Your task to perform on an android device: set the timer Image 0: 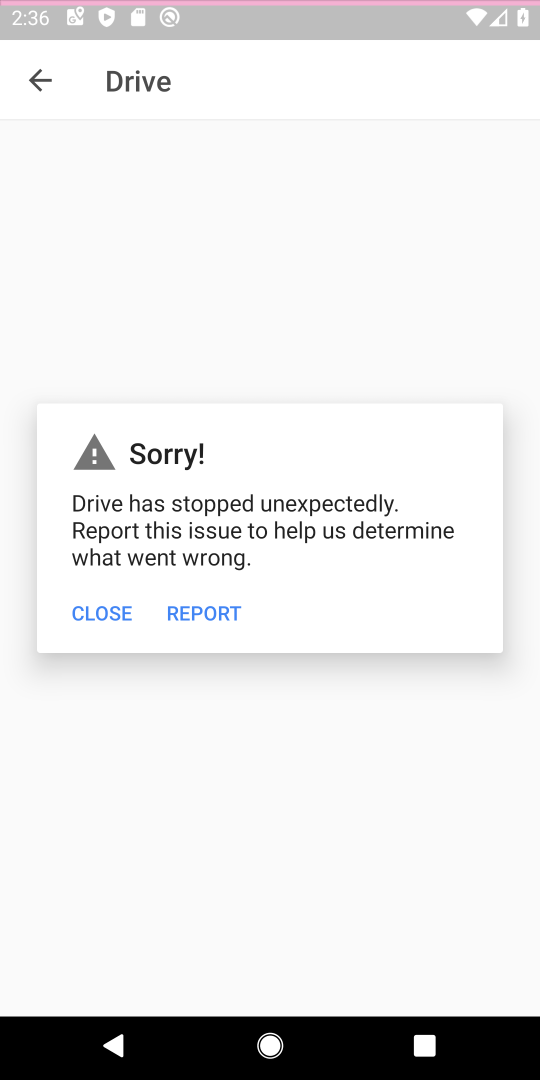
Step 0: press home button
Your task to perform on an android device: set the timer Image 1: 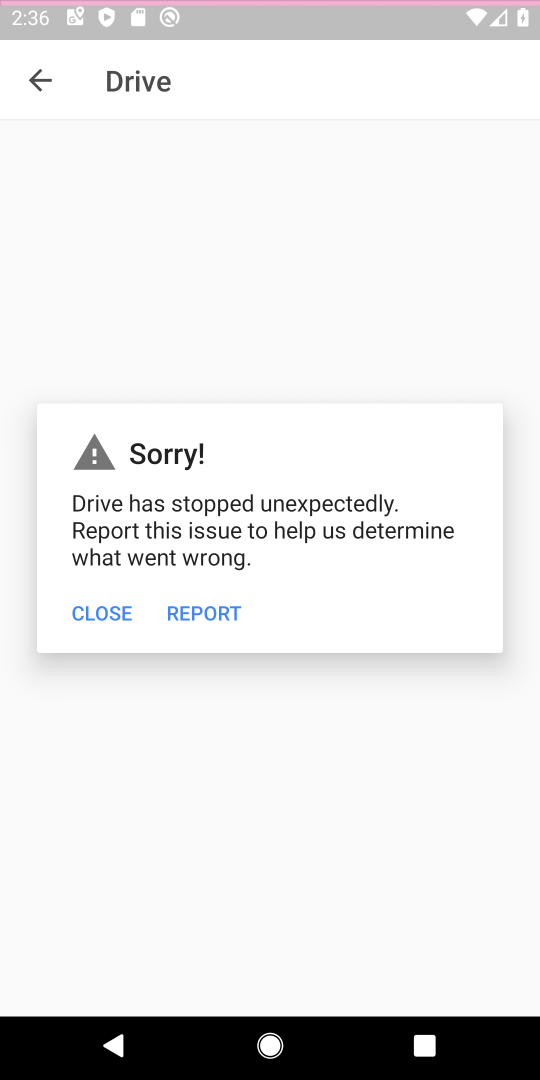
Step 1: click (325, 243)
Your task to perform on an android device: set the timer Image 2: 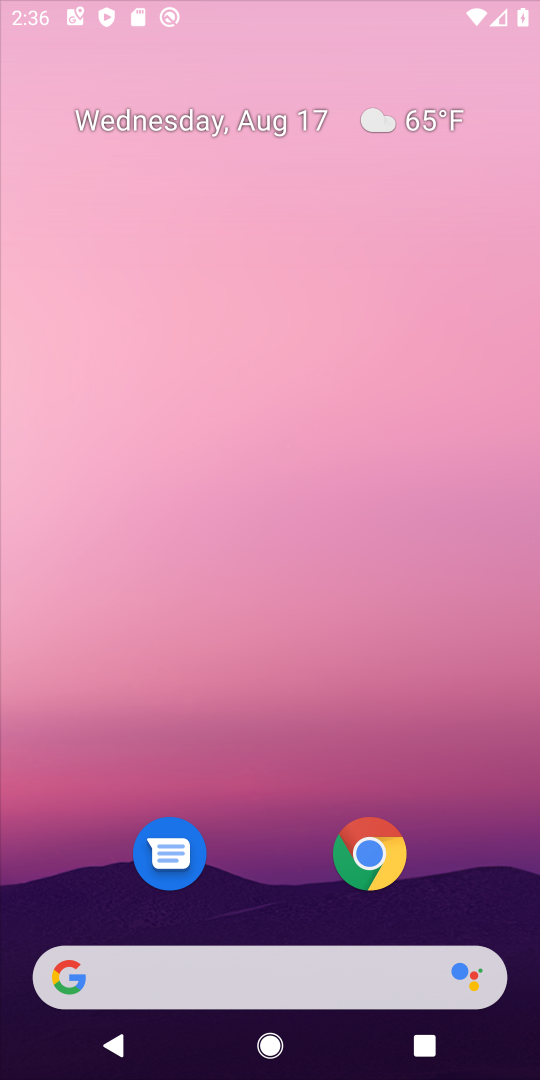
Step 2: press home button
Your task to perform on an android device: set the timer Image 3: 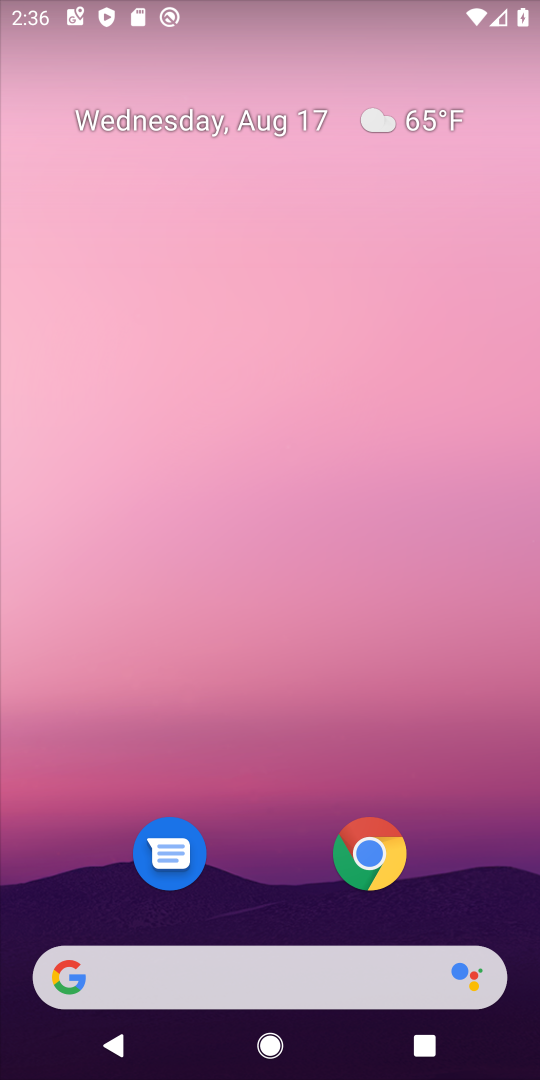
Step 3: drag from (220, 906) to (196, 200)
Your task to perform on an android device: set the timer Image 4: 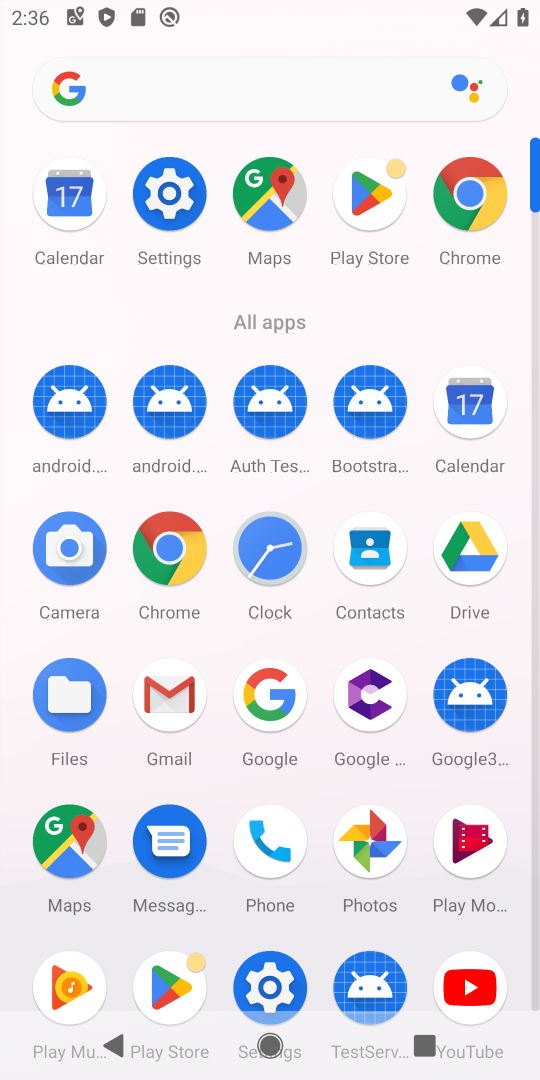
Step 4: drag from (268, 747) to (525, 565)
Your task to perform on an android device: set the timer Image 5: 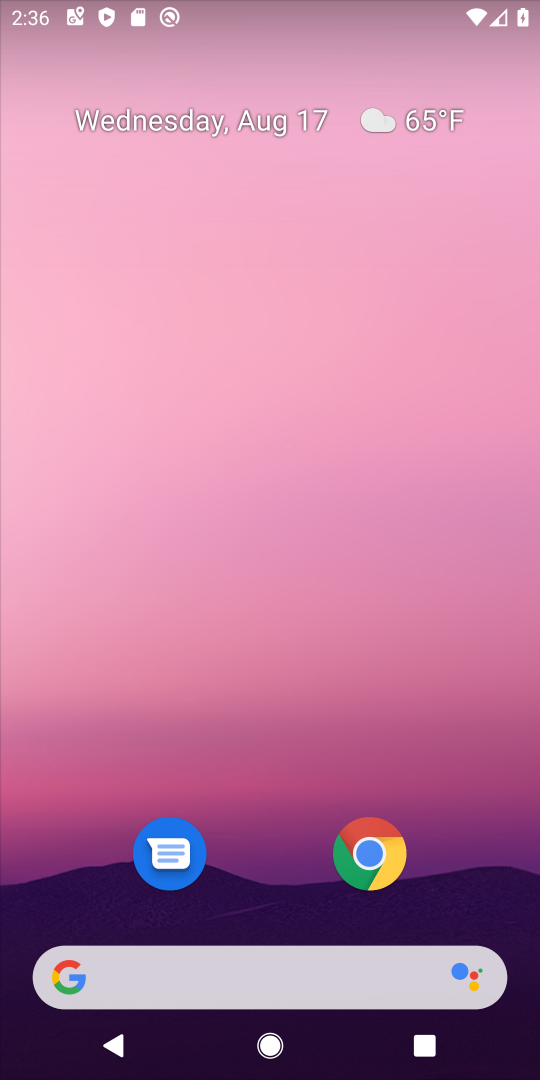
Step 5: drag from (341, 795) to (326, 228)
Your task to perform on an android device: set the timer Image 6: 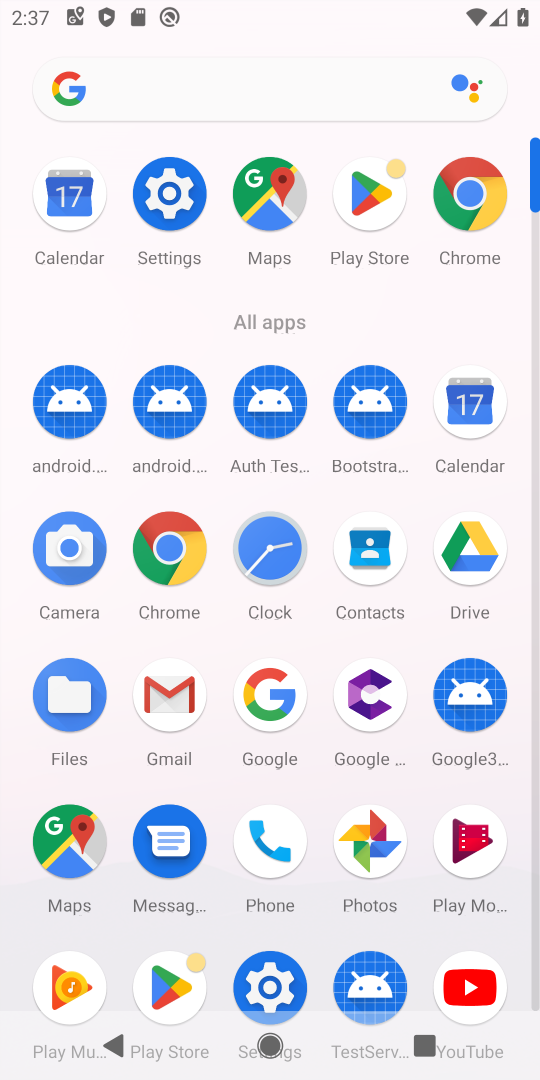
Step 6: click (275, 554)
Your task to perform on an android device: set the timer Image 7: 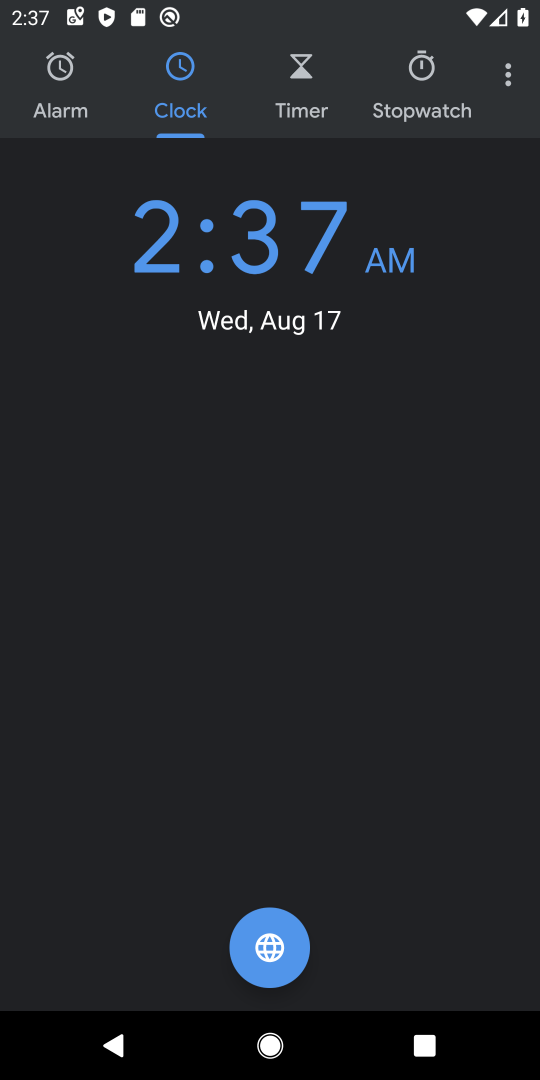
Step 7: click (283, 93)
Your task to perform on an android device: set the timer Image 8: 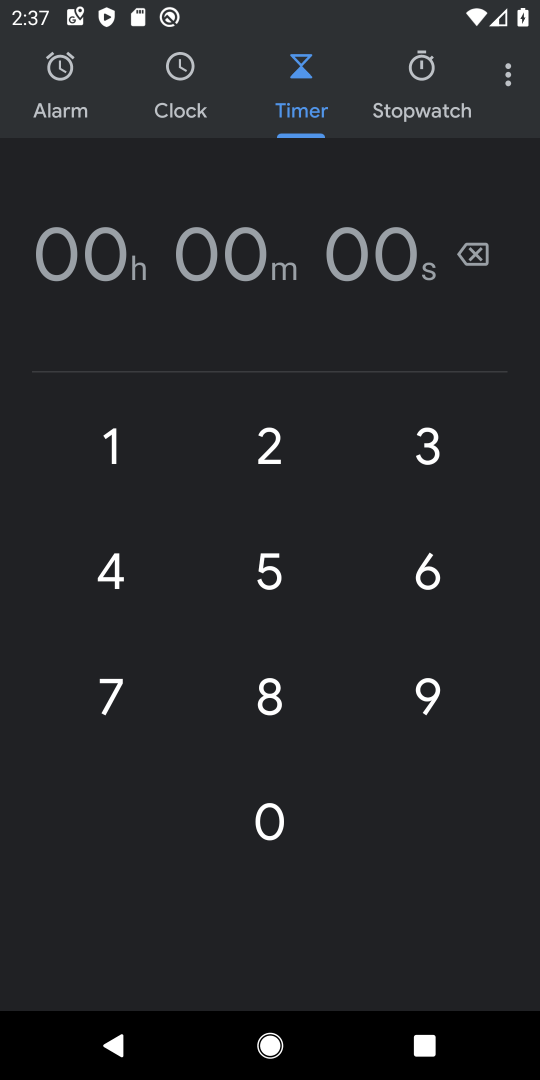
Step 8: click (269, 684)
Your task to perform on an android device: set the timer Image 9: 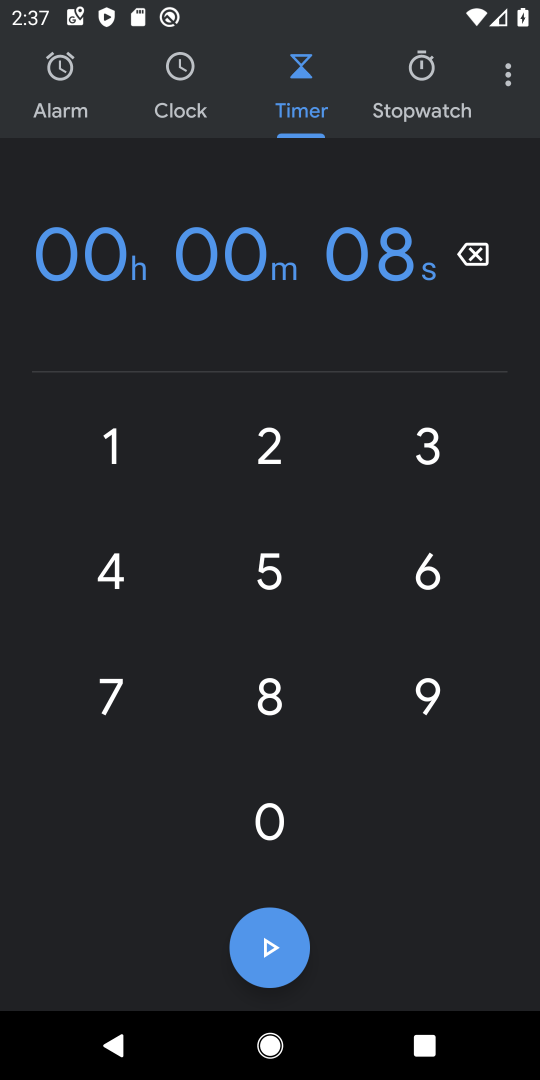
Step 9: click (269, 575)
Your task to perform on an android device: set the timer Image 10: 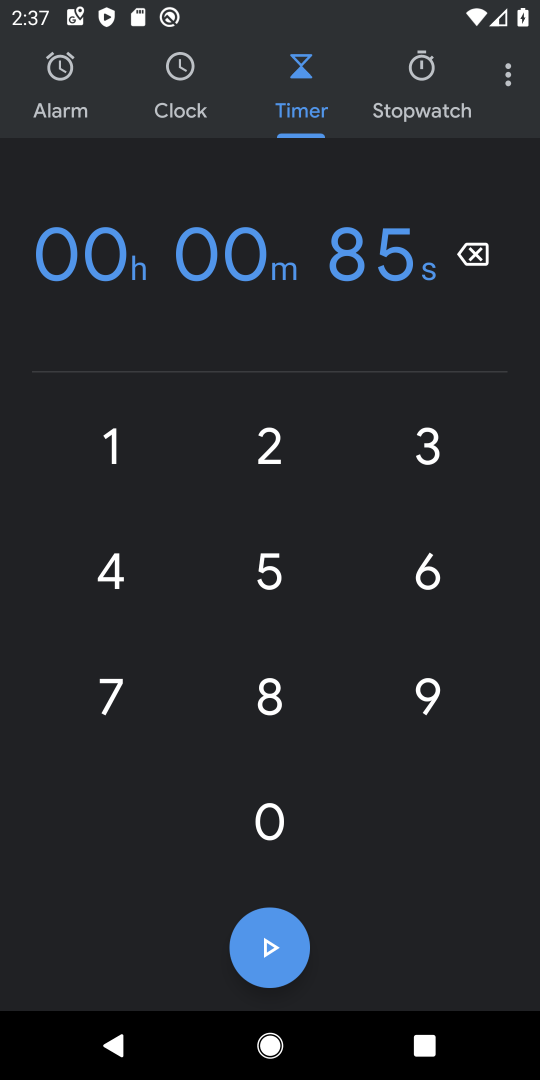
Step 10: click (258, 447)
Your task to perform on an android device: set the timer Image 11: 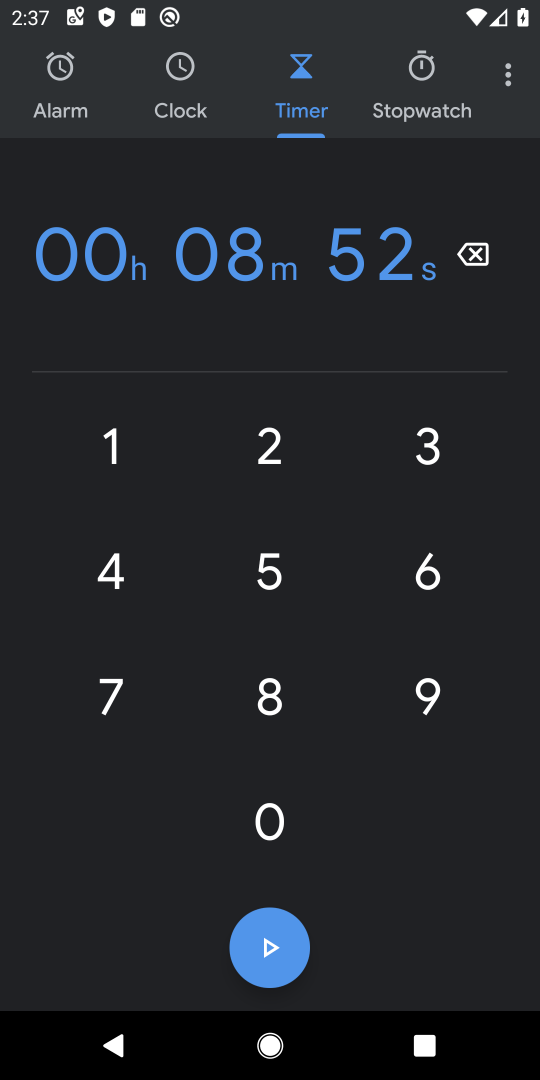
Step 11: click (283, 586)
Your task to perform on an android device: set the timer Image 12: 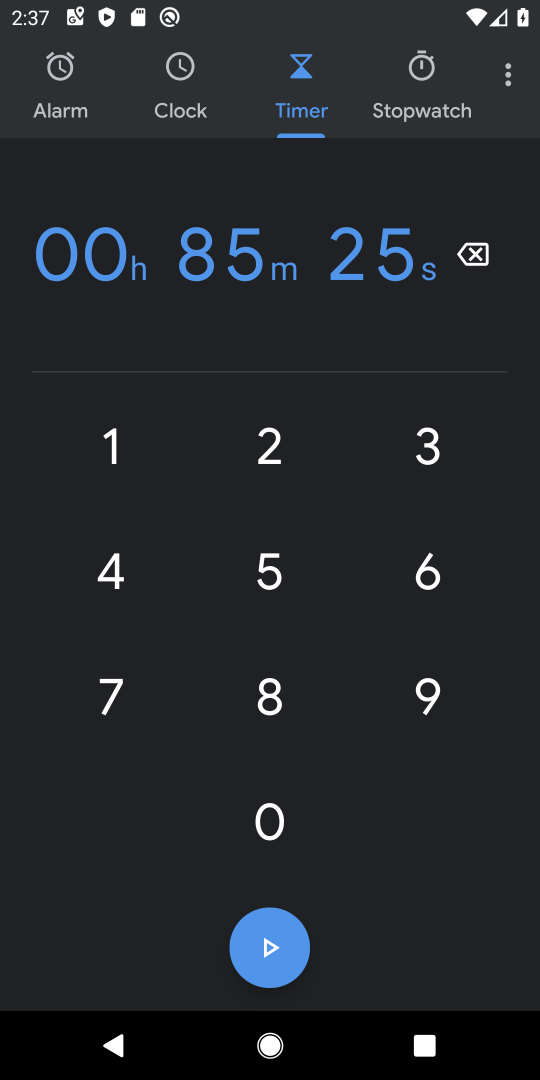
Step 12: click (268, 689)
Your task to perform on an android device: set the timer Image 13: 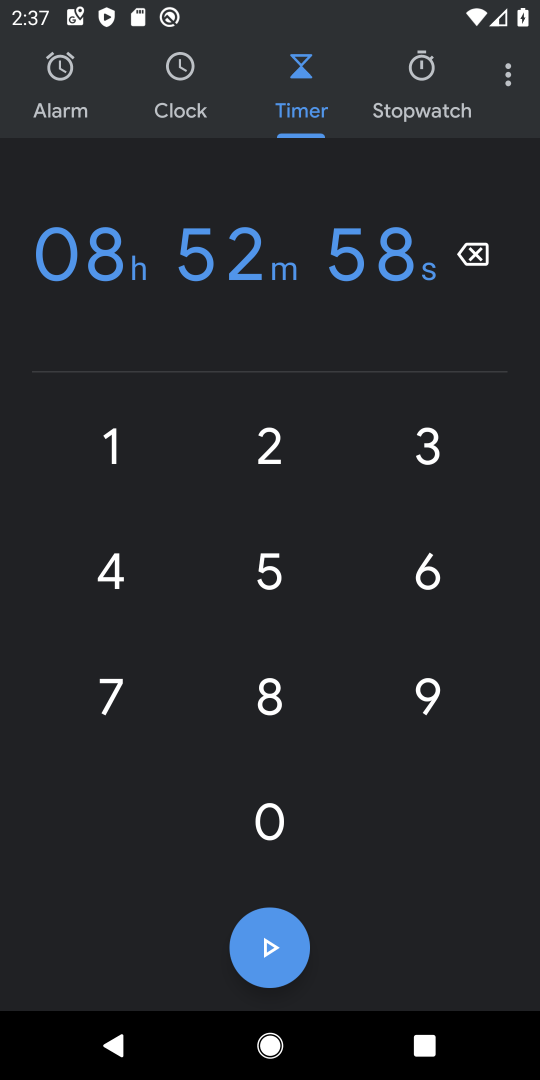
Step 13: click (277, 934)
Your task to perform on an android device: set the timer Image 14: 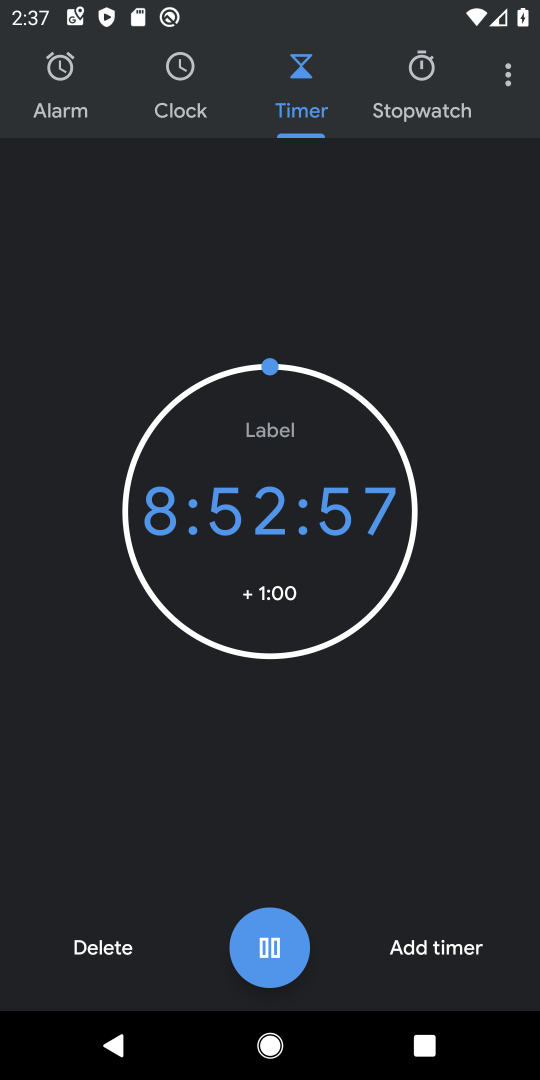
Step 14: task complete